Your task to perform on an android device: Open Google Chrome and click the shortcut for Amazon.com Image 0: 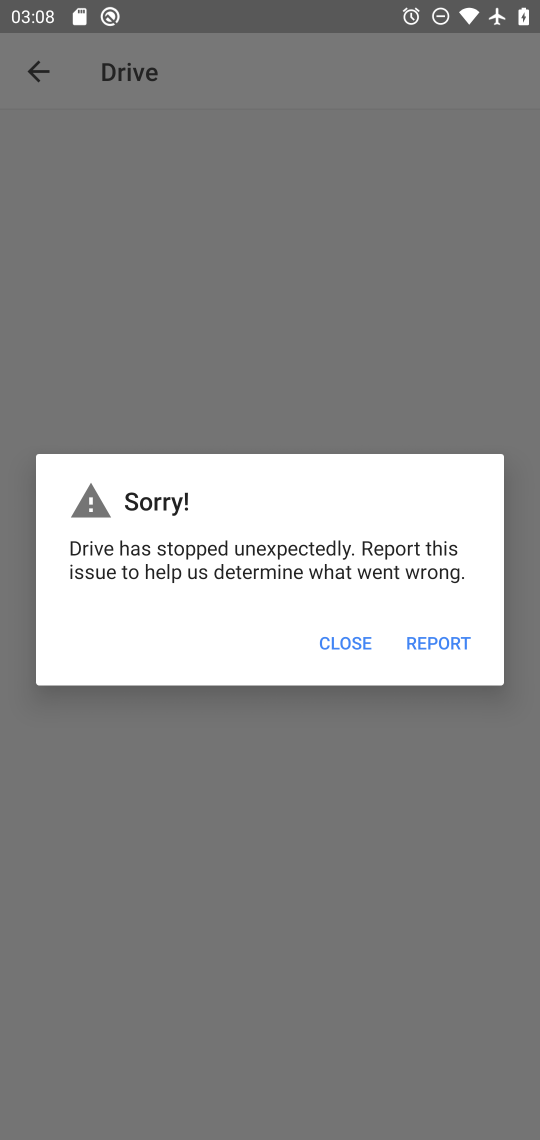
Step 0: press back button
Your task to perform on an android device: Open Google Chrome and click the shortcut for Amazon.com Image 1: 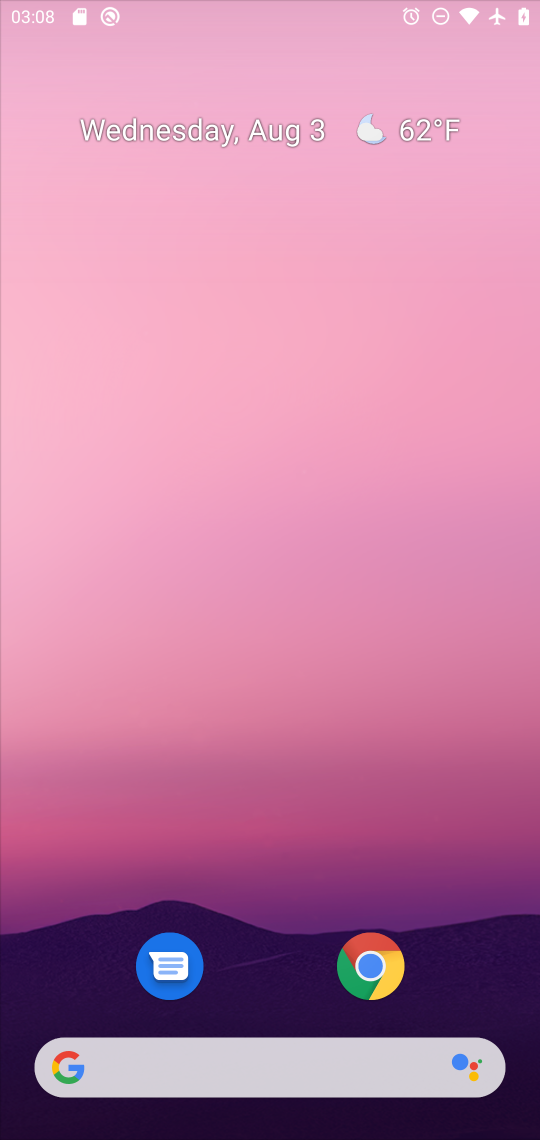
Step 1: press back button
Your task to perform on an android device: Open Google Chrome and click the shortcut for Amazon.com Image 2: 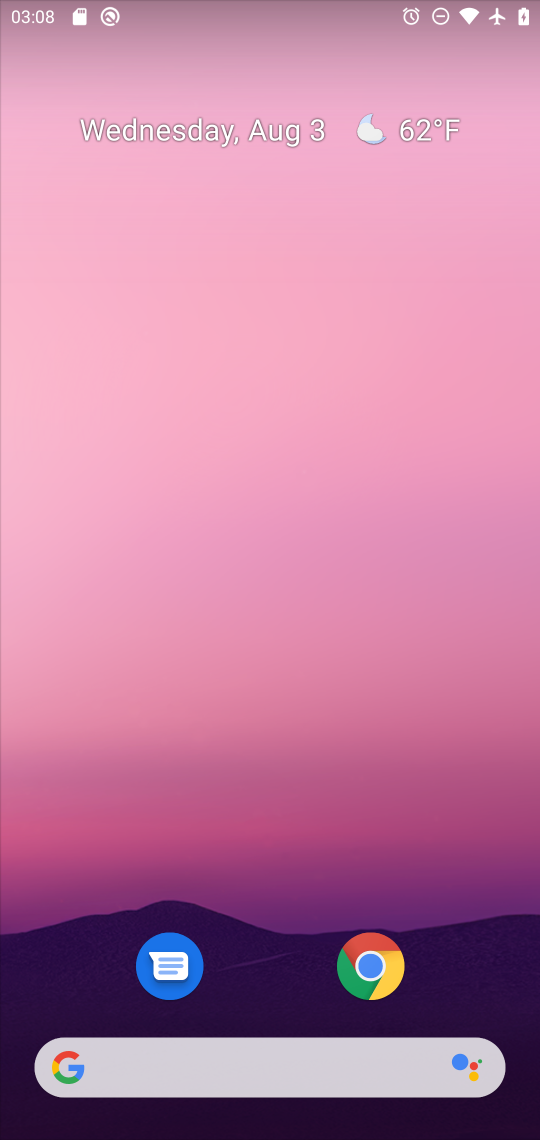
Step 2: press back button
Your task to perform on an android device: Open Google Chrome and click the shortcut for Amazon.com Image 3: 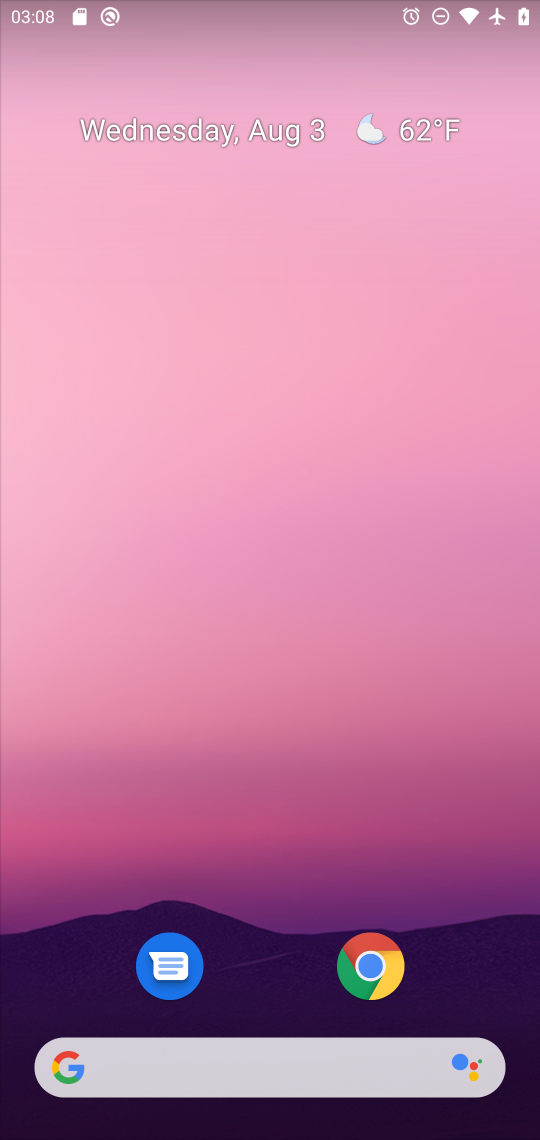
Step 3: drag from (255, 935) to (271, 766)
Your task to perform on an android device: Open Google Chrome and click the shortcut for Amazon.com Image 4: 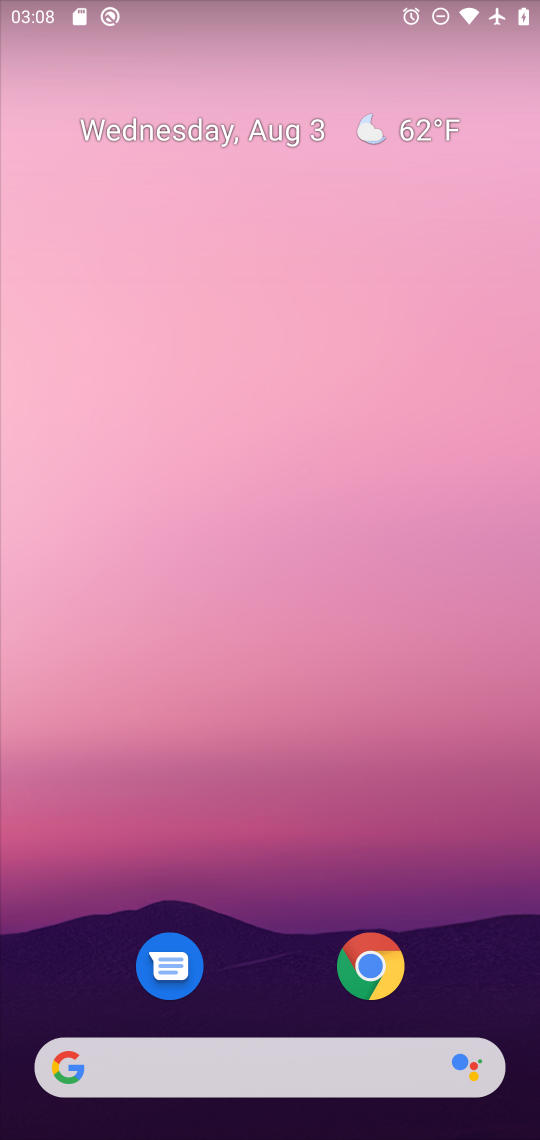
Step 4: click (374, 958)
Your task to perform on an android device: Open Google Chrome and click the shortcut for Amazon.com Image 5: 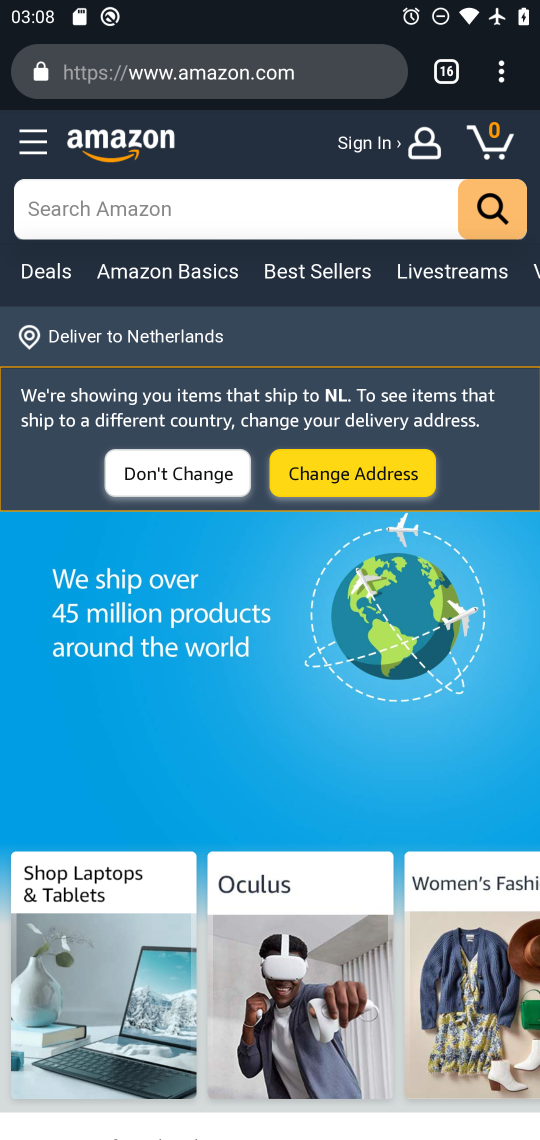
Step 5: task complete